Your task to perform on an android device: Open the calendar app, open the side menu, and click the "Day" option Image 0: 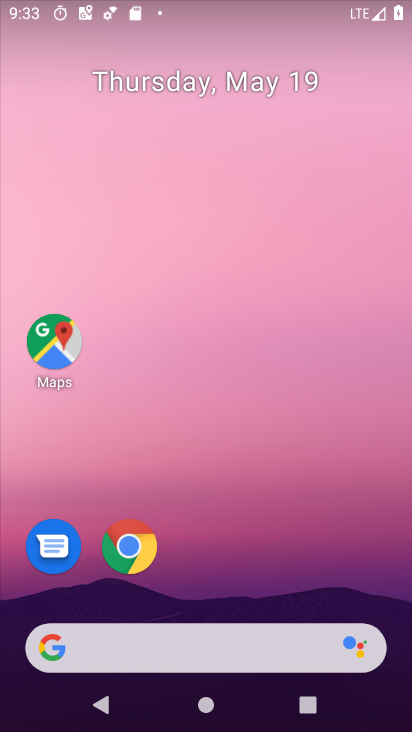
Step 0: drag from (208, 421) to (273, 15)
Your task to perform on an android device: Open the calendar app, open the side menu, and click the "Day" option Image 1: 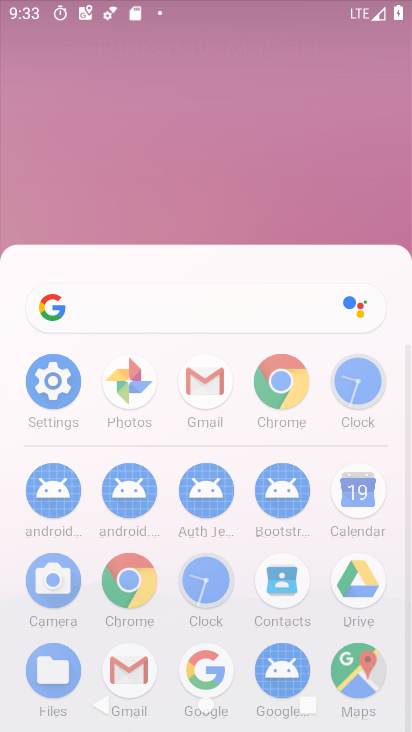
Step 1: drag from (295, 445) to (309, 0)
Your task to perform on an android device: Open the calendar app, open the side menu, and click the "Day" option Image 2: 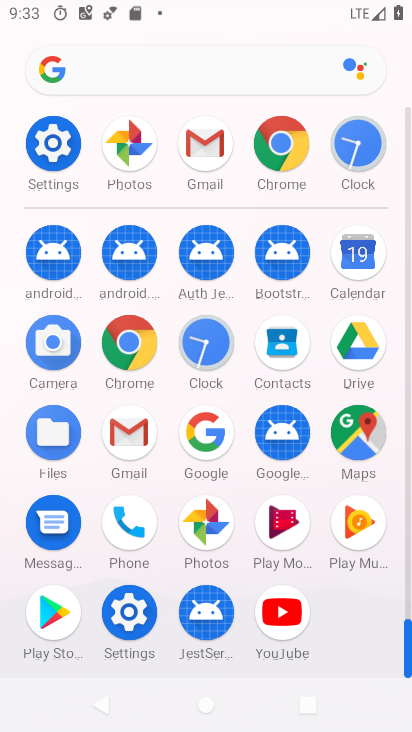
Step 2: click (374, 251)
Your task to perform on an android device: Open the calendar app, open the side menu, and click the "Day" option Image 3: 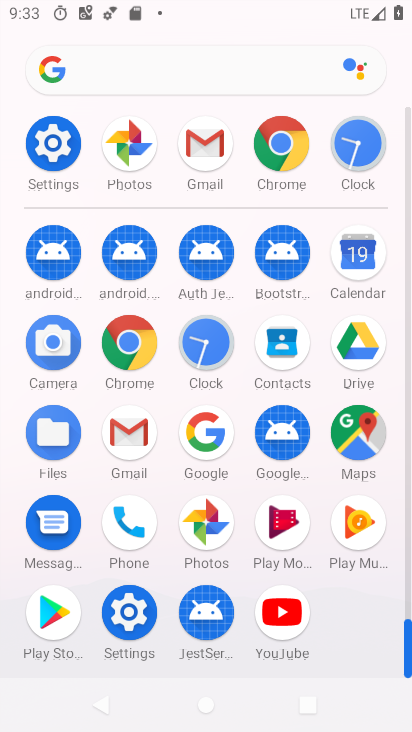
Step 3: click (370, 253)
Your task to perform on an android device: Open the calendar app, open the side menu, and click the "Day" option Image 4: 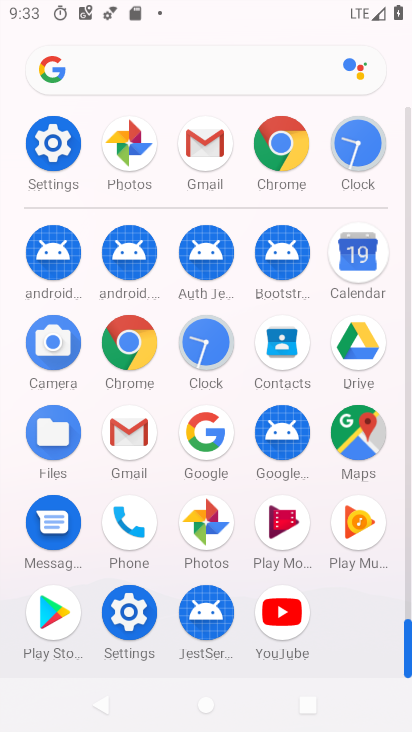
Step 4: click (370, 253)
Your task to perform on an android device: Open the calendar app, open the side menu, and click the "Day" option Image 5: 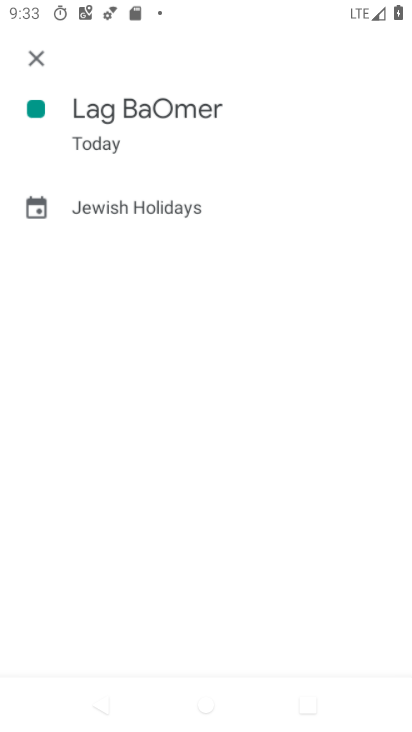
Step 5: click (370, 253)
Your task to perform on an android device: Open the calendar app, open the side menu, and click the "Day" option Image 6: 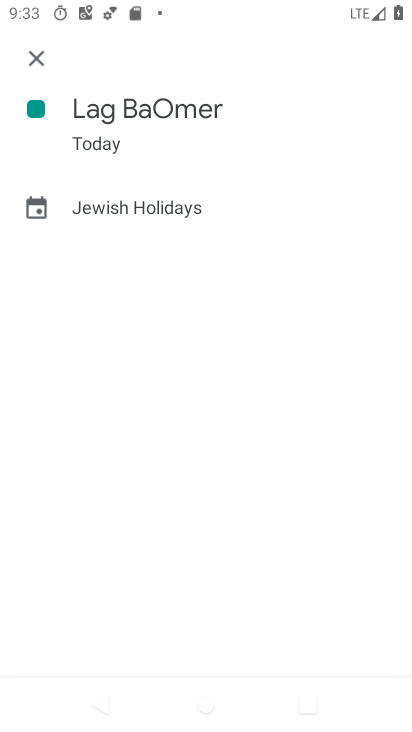
Step 6: click (29, 50)
Your task to perform on an android device: Open the calendar app, open the side menu, and click the "Day" option Image 7: 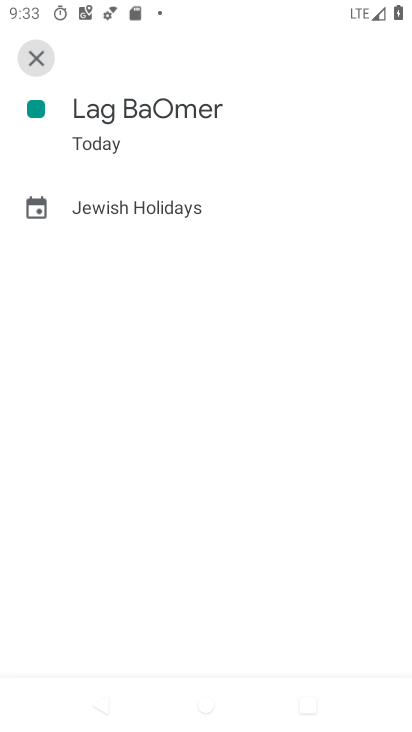
Step 7: click (31, 48)
Your task to perform on an android device: Open the calendar app, open the side menu, and click the "Day" option Image 8: 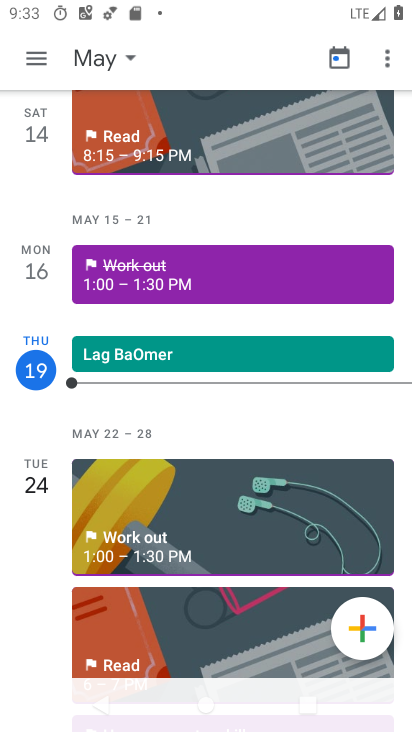
Step 8: click (33, 44)
Your task to perform on an android device: Open the calendar app, open the side menu, and click the "Day" option Image 9: 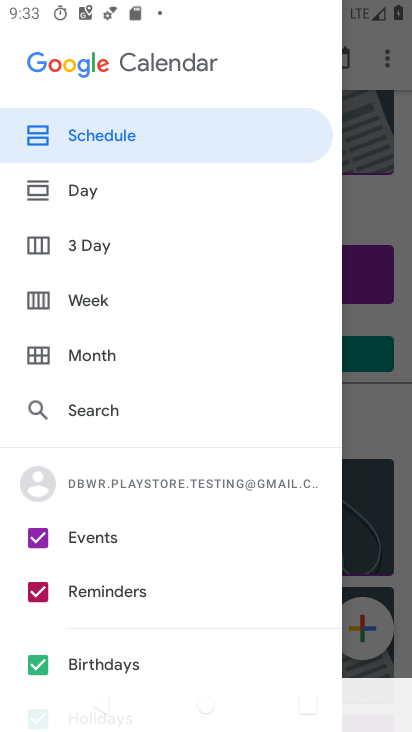
Step 9: click (91, 190)
Your task to perform on an android device: Open the calendar app, open the side menu, and click the "Day" option Image 10: 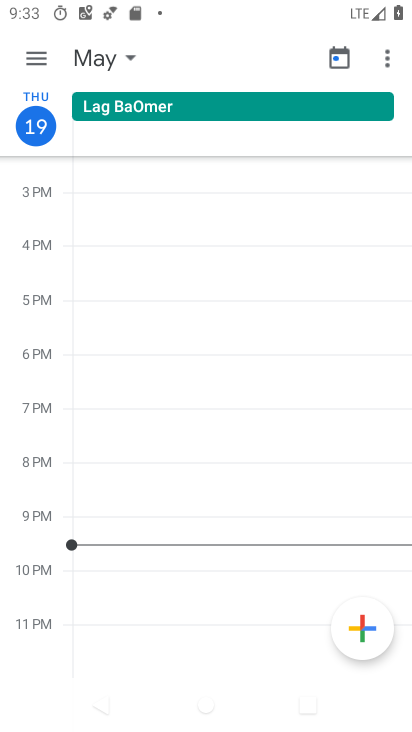
Step 10: task complete